Your task to perform on an android device: Open settings on Google Maps Image 0: 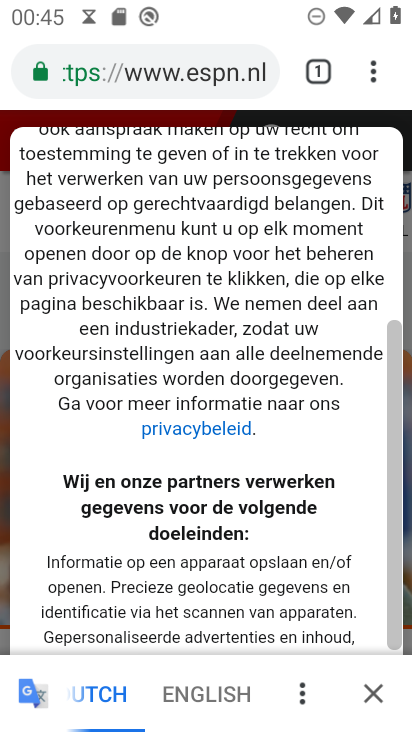
Step 0: press home button
Your task to perform on an android device: Open settings on Google Maps Image 1: 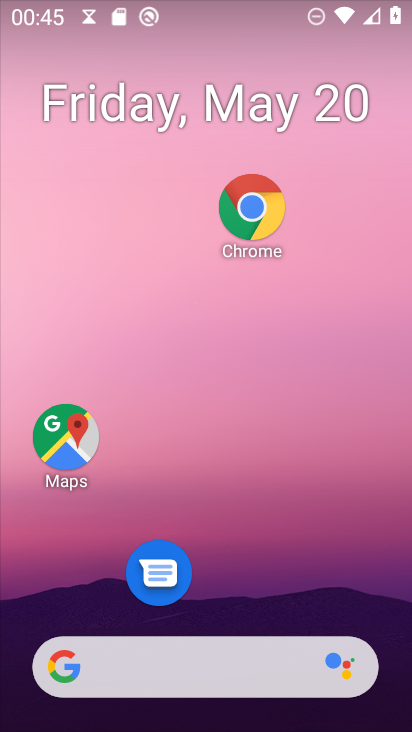
Step 1: click (56, 433)
Your task to perform on an android device: Open settings on Google Maps Image 2: 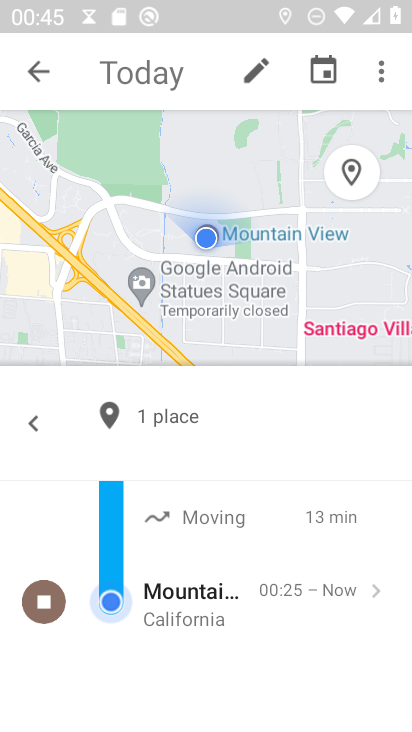
Step 2: click (51, 90)
Your task to perform on an android device: Open settings on Google Maps Image 3: 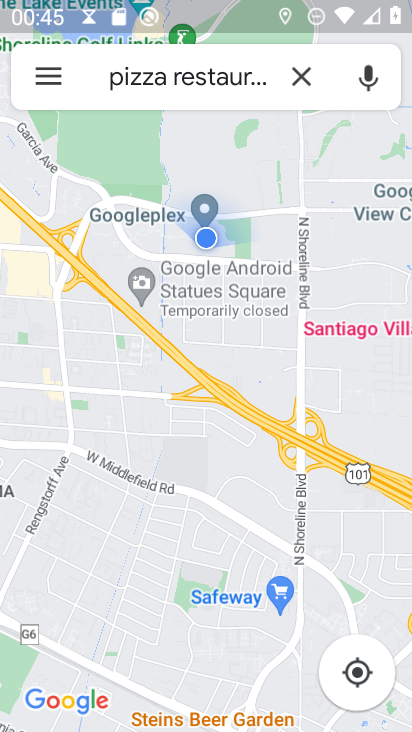
Step 3: click (68, 78)
Your task to perform on an android device: Open settings on Google Maps Image 4: 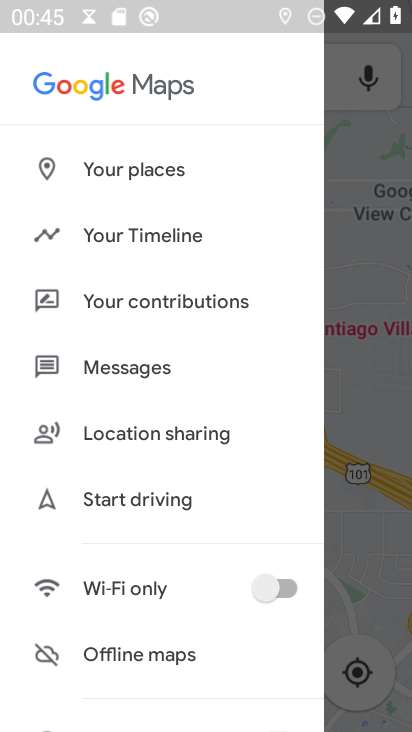
Step 4: drag from (140, 599) to (172, 162)
Your task to perform on an android device: Open settings on Google Maps Image 5: 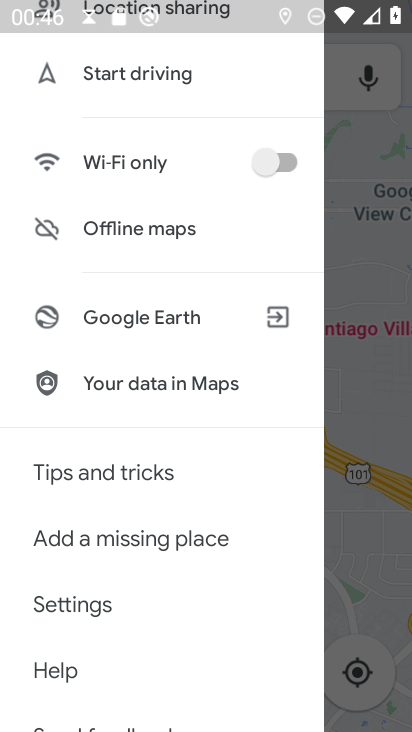
Step 5: click (102, 601)
Your task to perform on an android device: Open settings on Google Maps Image 6: 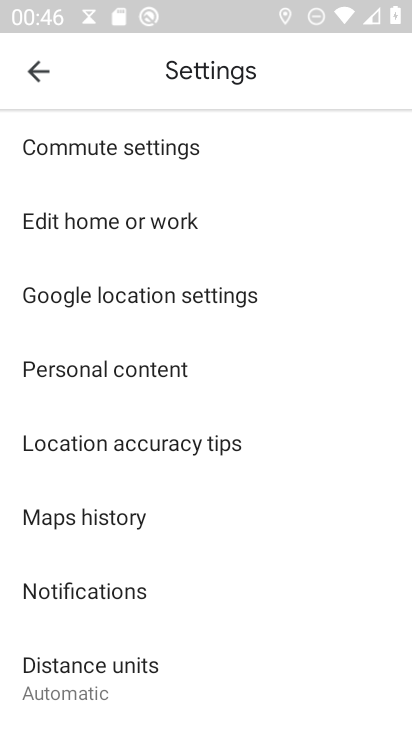
Step 6: task complete